Your task to perform on an android device: open app "Grab" (install if not already installed) Image 0: 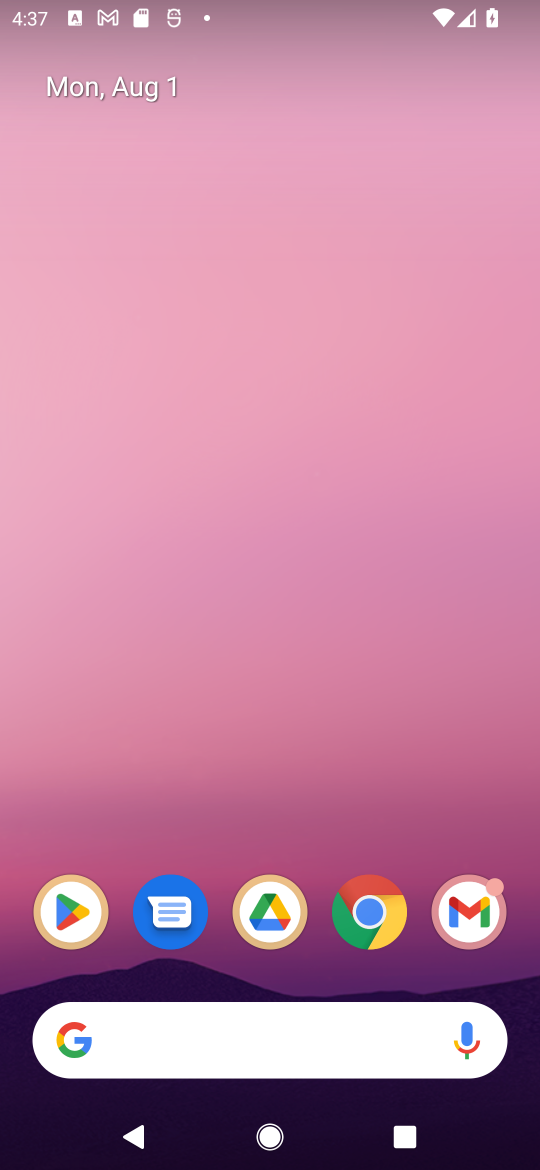
Step 0: click (75, 890)
Your task to perform on an android device: open app "Grab" (install if not already installed) Image 1: 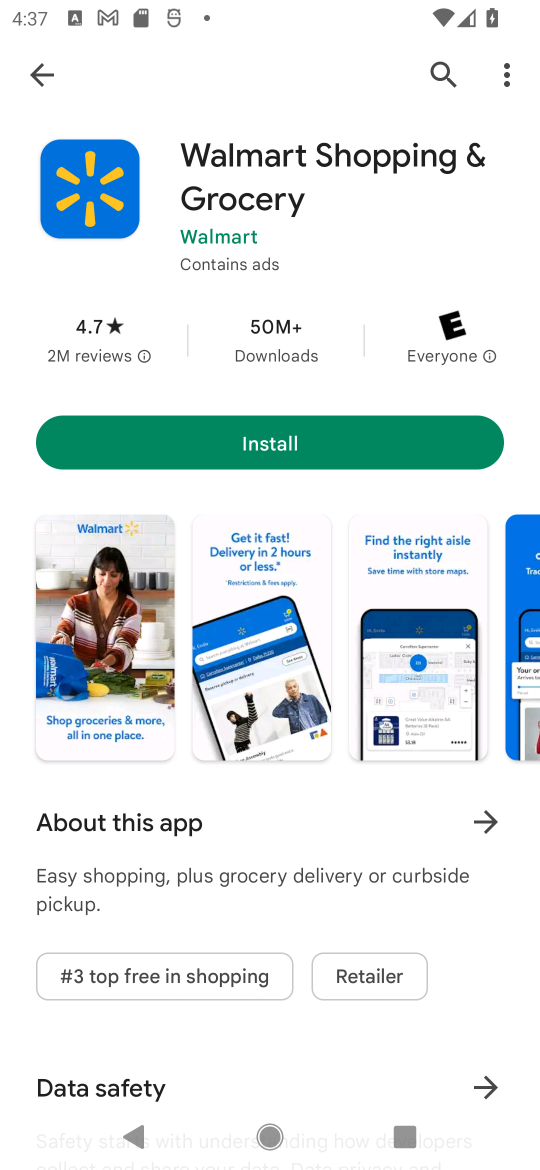
Step 1: click (444, 71)
Your task to perform on an android device: open app "Grab" (install if not already installed) Image 2: 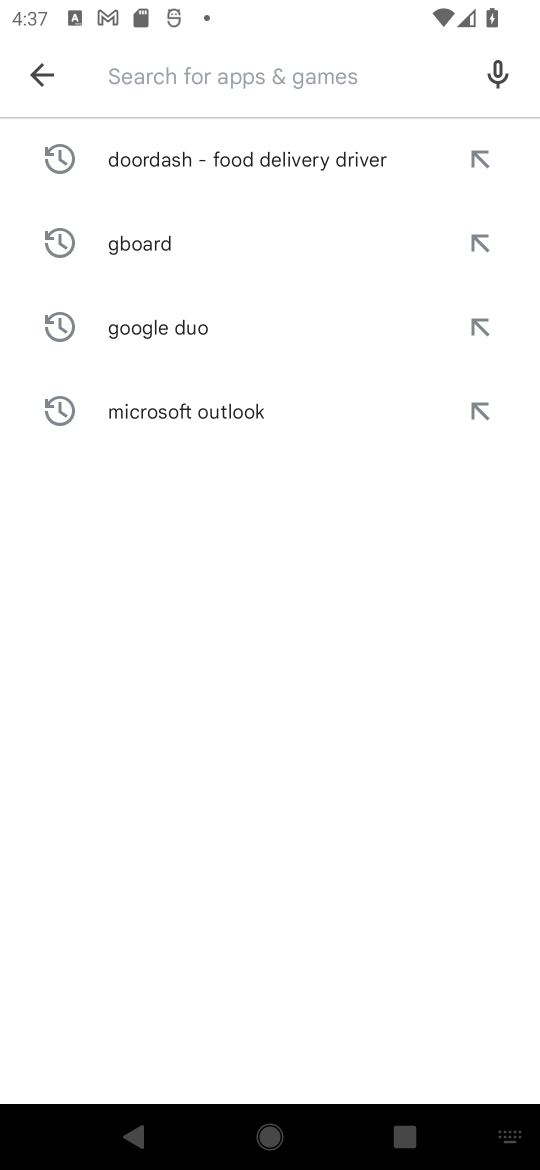
Step 2: type "Grab"
Your task to perform on an android device: open app "Grab" (install if not already installed) Image 3: 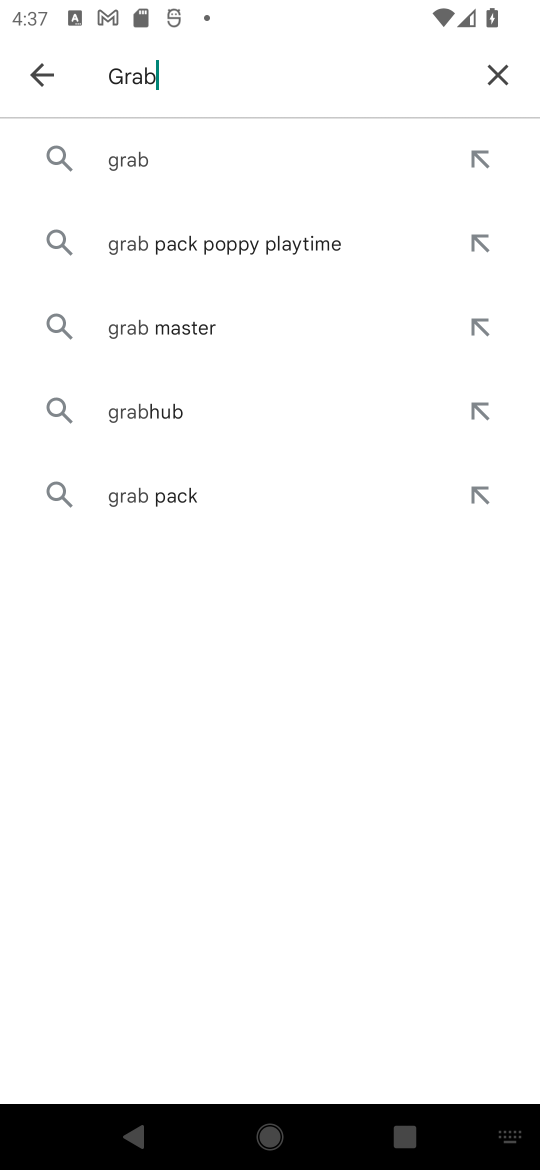
Step 3: click (96, 160)
Your task to perform on an android device: open app "Grab" (install if not already installed) Image 4: 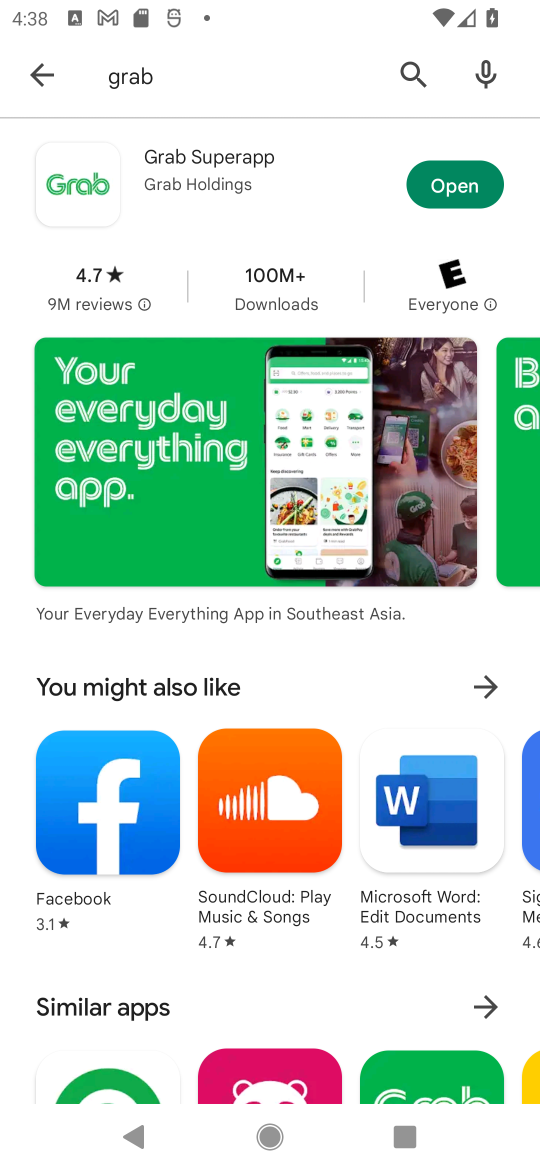
Step 4: click (475, 189)
Your task to perform on an android device: open app "Grab" (install if not already installed) Image 5: 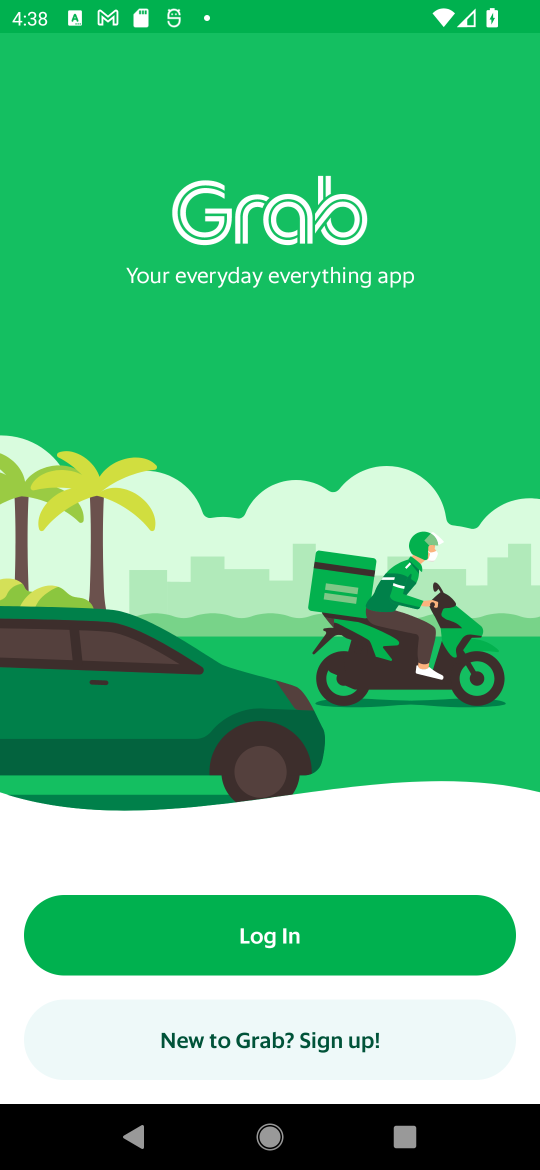
Step 5: task complete